Your task to perform on an android device: clear history in the chrome app Image 0: 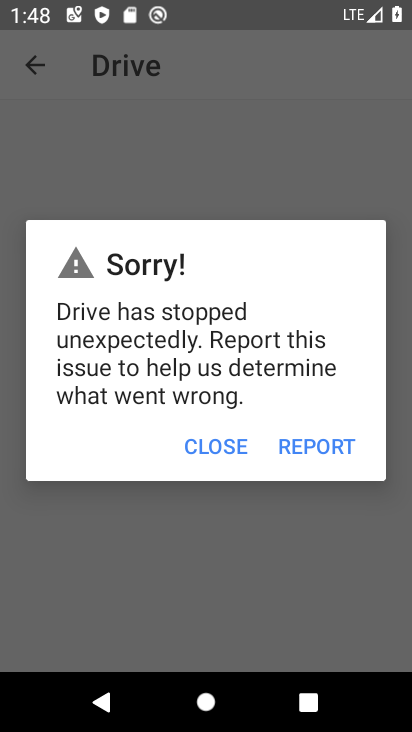
Step 0: press home button
Your task to perform on an android device: clear history in the chrome app Image 1: 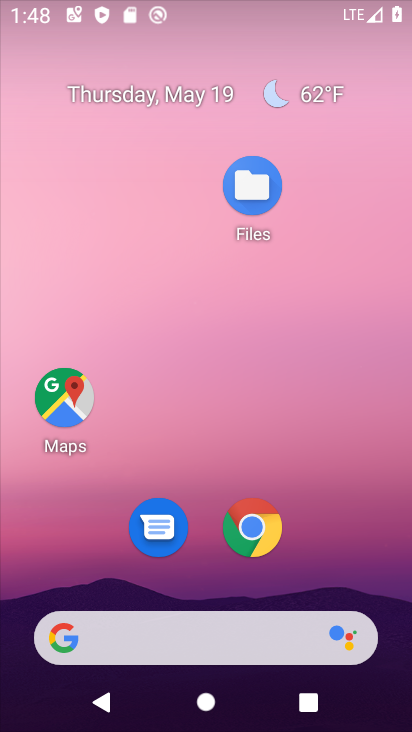
Step 1: drag from (361, 562) to (361, 202)
Your task to perform on an android device: clear history in the chrome app Image 2: 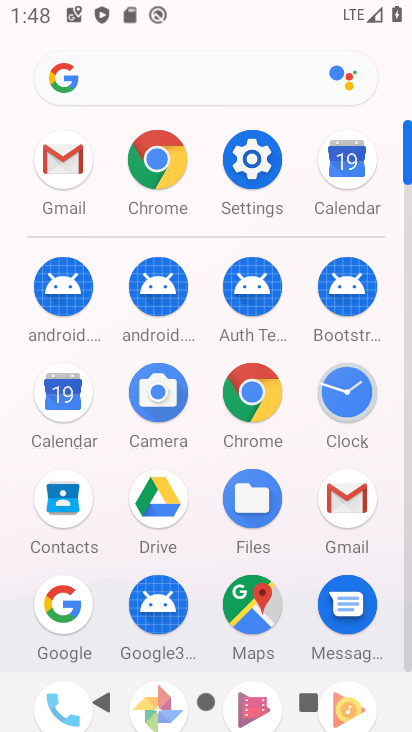
Step 2: click (242, 409)
Your task to perform on an android device: clear history in the chrome app Image 3: 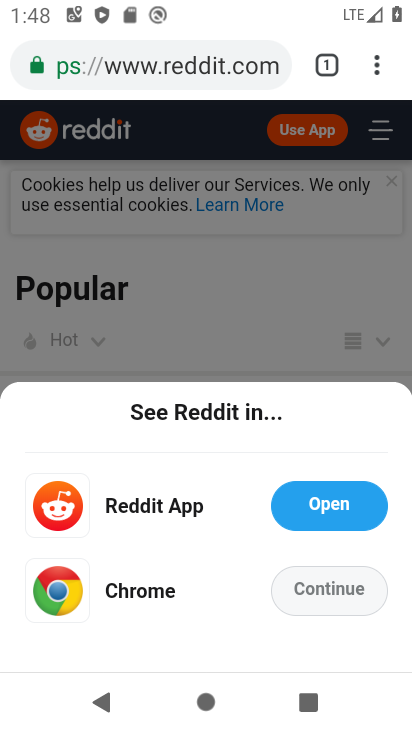
Step 3: press home button
Your task to perform on an android device: clear history in the chrome app Image 4: 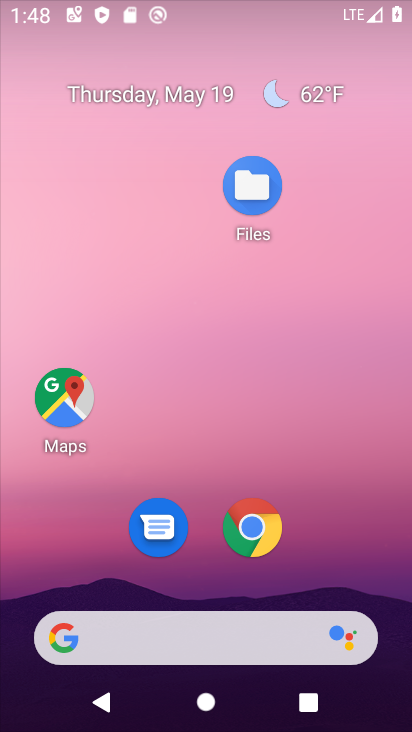
Step 4: drag from (368, 558) to (348, 179)
Your task to perform on an android device: clear history in the chrome app Image 5: 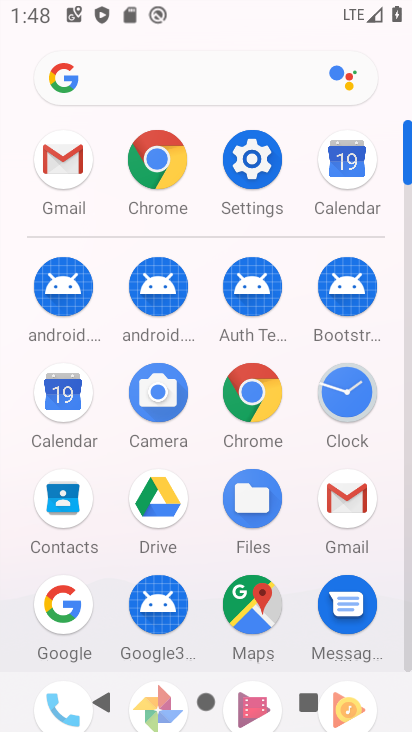
Step 5: click (243, 399)
Your task to perform on an android device: clear history in the chrome app Image 6: 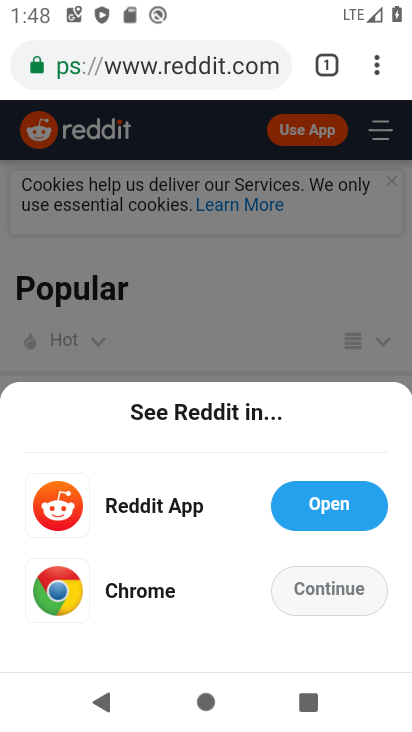
Step 6: drag from (385, 70) to (246, 163)
Your task to perform on an android device: clear history in the chrome app Image 7: 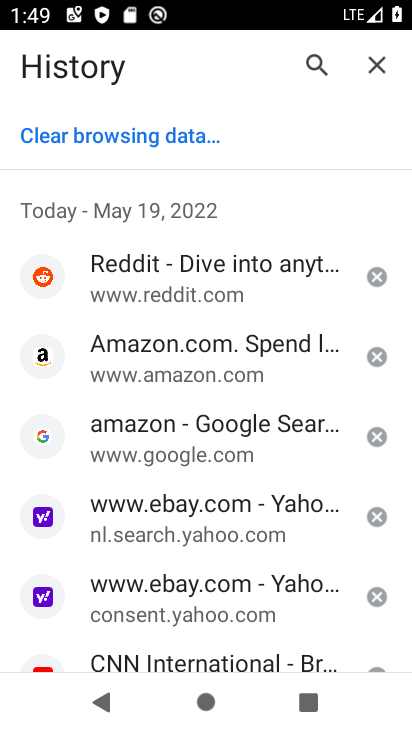
Step 7: click (148, 122)
Your task to perform on an android device: clear history in the chrome app Image 8: 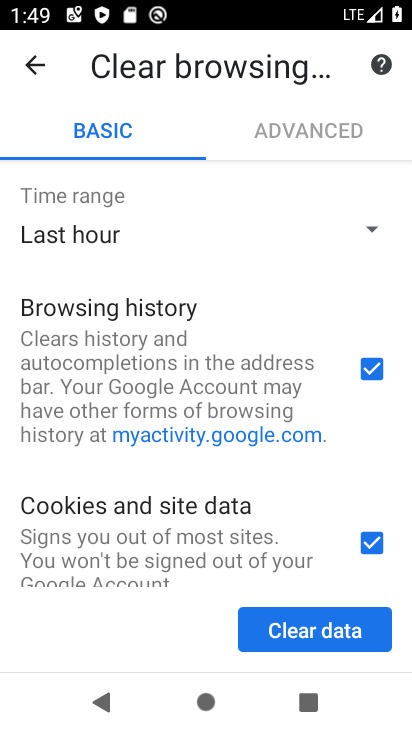
Step 8: drag from (171, 601) to (230, 266)
Your task to perform on an android device: clear history in the chrome app Image 9: 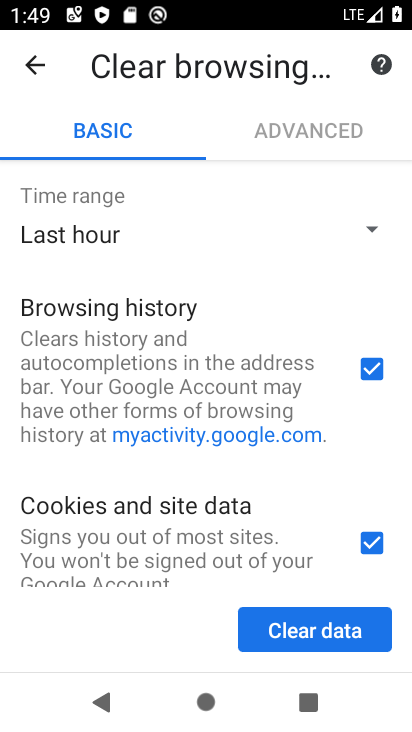
Step 9: drag from (190, 497) to (214, 243)
Your task to perform on an android device: clear history in the chrome app Image 10: 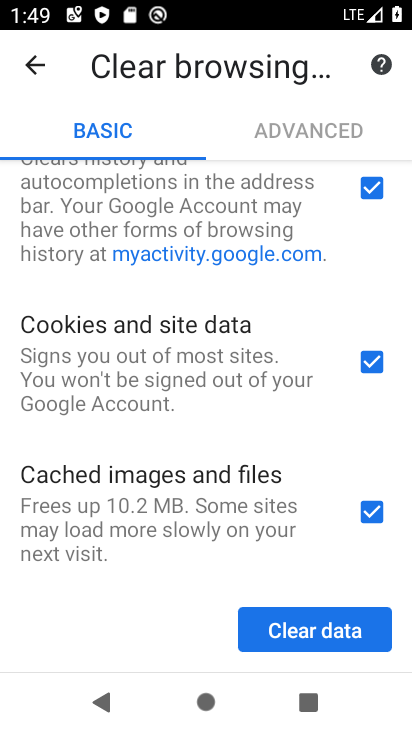
Step 10: click (305, 633)
Your task to perform on an android device: clear history in the chrome app Image 11: 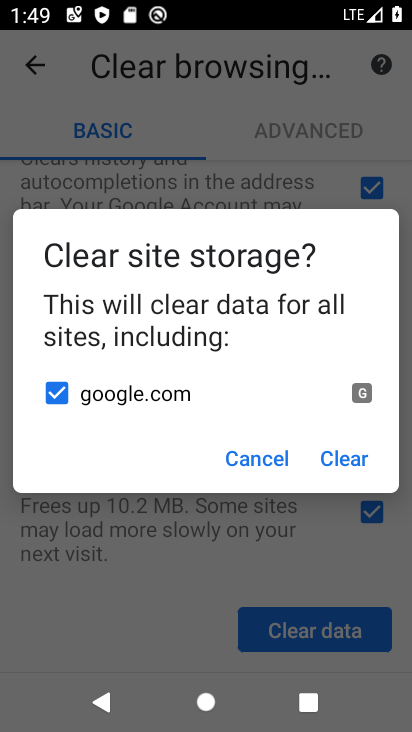
Step 11: click (355, 457)
Your task to perform on an android device: clear history in the chrome app Image 12: 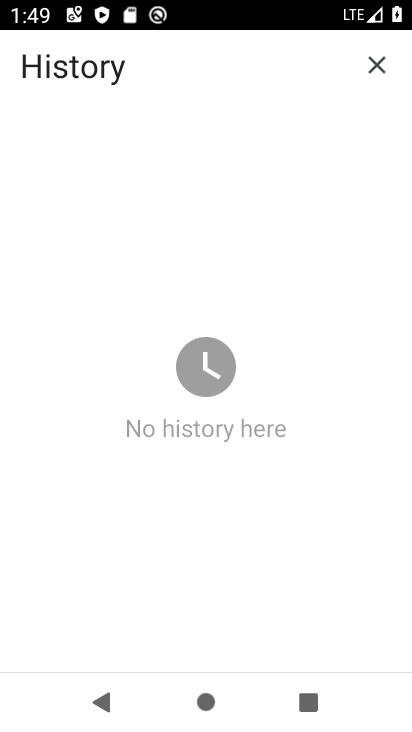
Step 12: task complete